Your task to perform on an android device: turn off notifications in google photos Image 0: 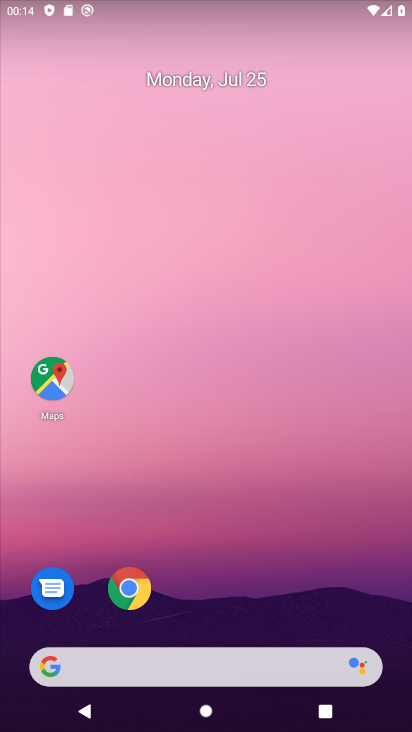
Step 0: drag from (208, 615) to (299, 4)
Your task to perform on an android device: turn off notifications in google photos Image 1: 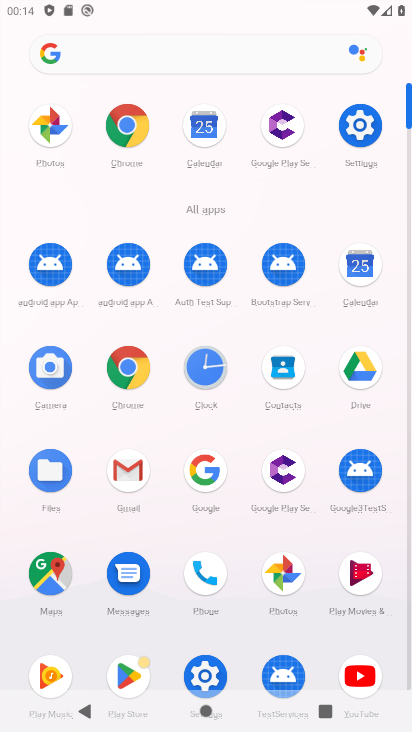
Step 1: click (280, 581)
Your task to perform on an android device: turn off notifications in google photos Image 2: 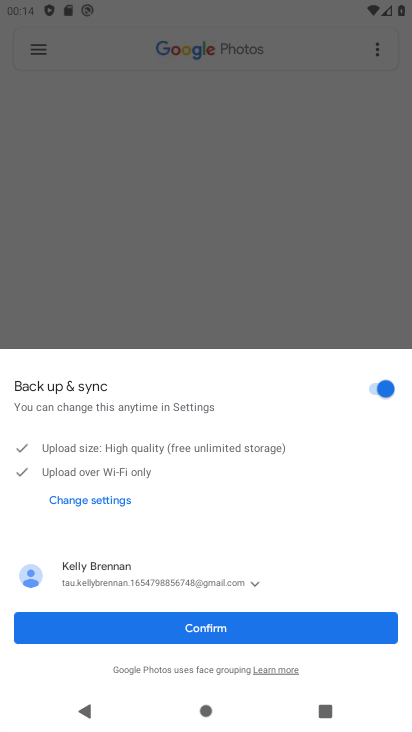
Step 2: click (198, 632)
Your task to perform on an android device: turn off notifications in google photos Image 3: 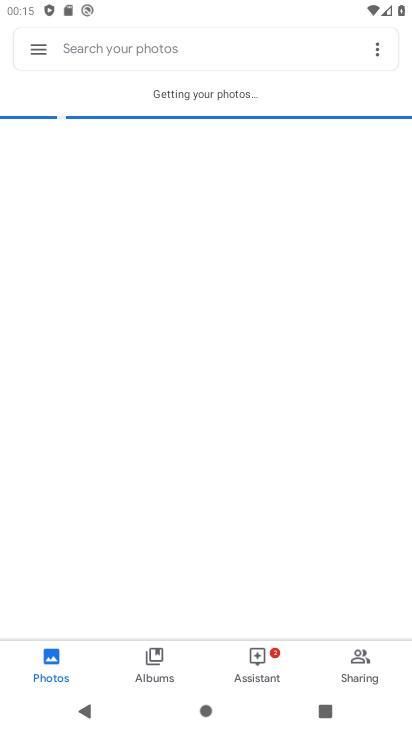
Step 3: click (31, 44)
Your task to perform on an android device: turn off notifications in google photos Image 4: 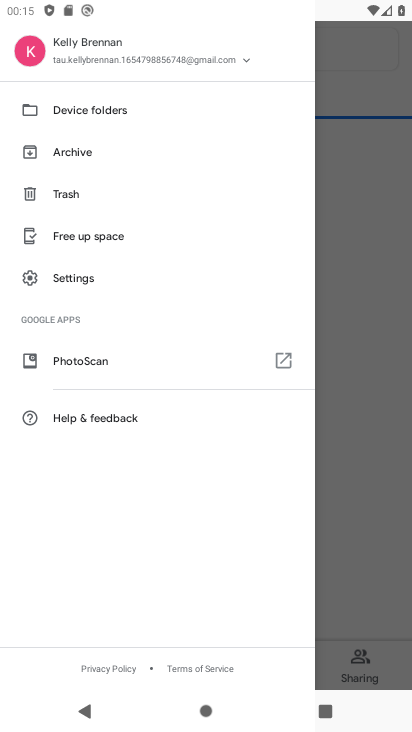
Step 4: click (81, 280)
Your task to perform on an android device: turn off notifications in google photos Image 5: 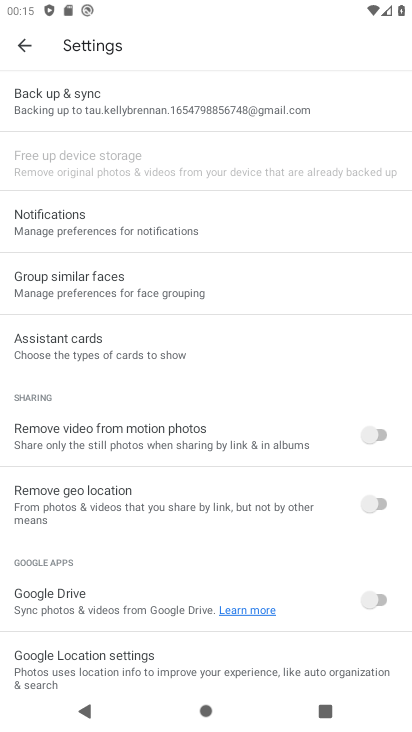
Step 5: click (80, 216)
Your task to perform on an android device: turn off notifications in google photos Image 6: 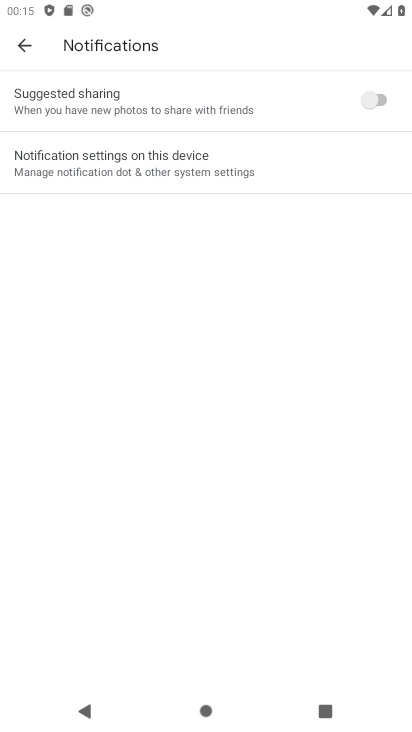
Step 6: click (147, 169)
Your task to perform on an android device: turn off notifications in google photos Image 7: 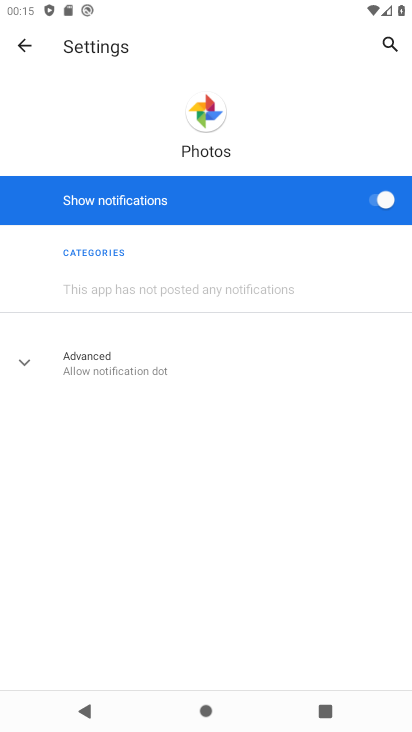
Step 7: click (345, 209)
Your task to perform on an android device: turn off notifications in google photos Image 8: 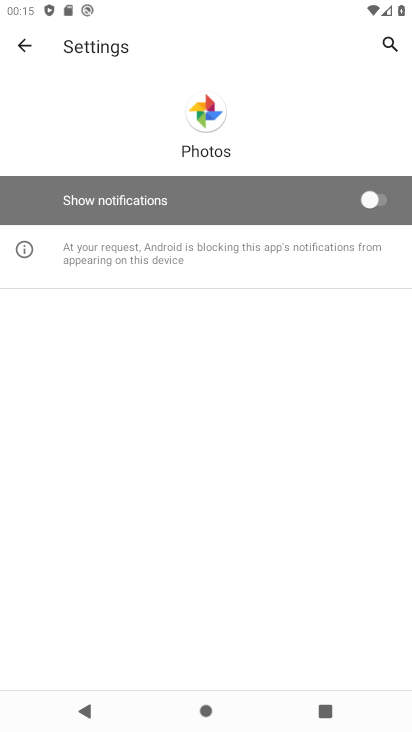
Step 8: task complete